Your task to perform on an android device: turn notification dots off Image 0: 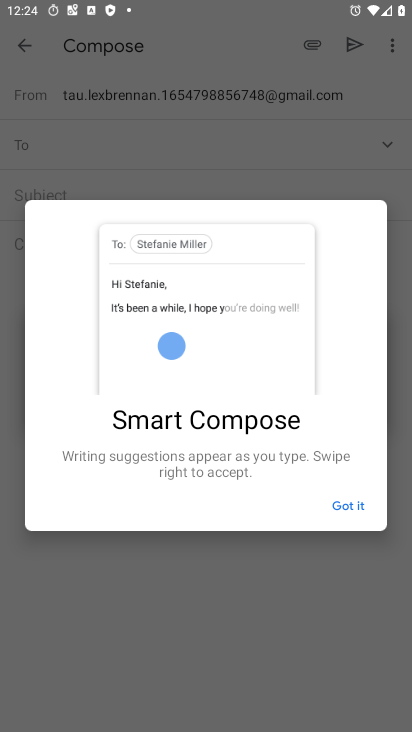
Step 0: press home button
Your task to perform on an android device: turn notification dots off Image 1: 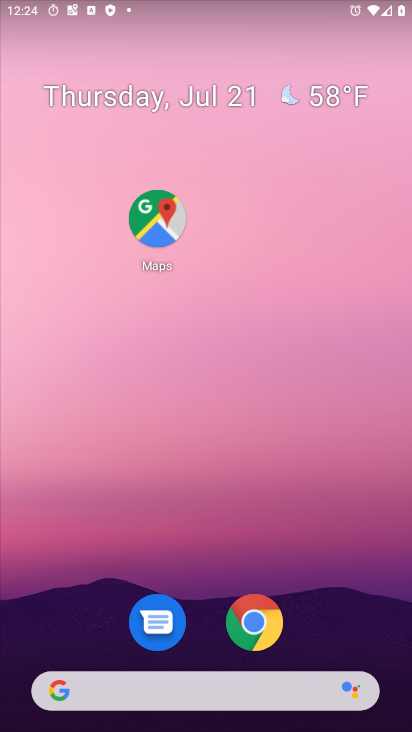
Step 1: drag from (51, 540) to (135, 190)
Your task to perform on an android device: turn notification dots off Image 2: 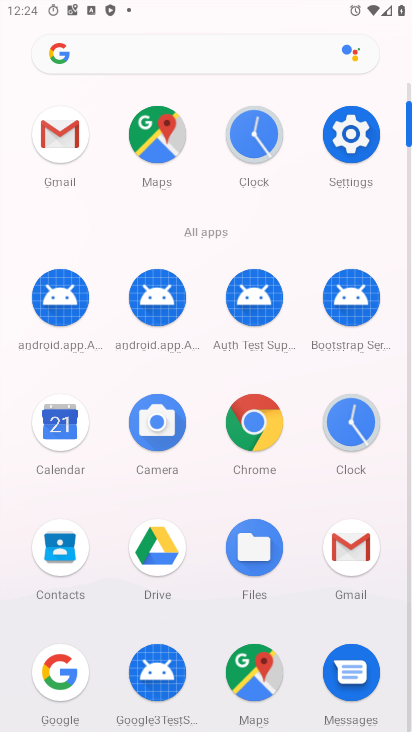
Step 2: click (356, 135)
Your task to perform on an android device: turn notification dots off Image 3: 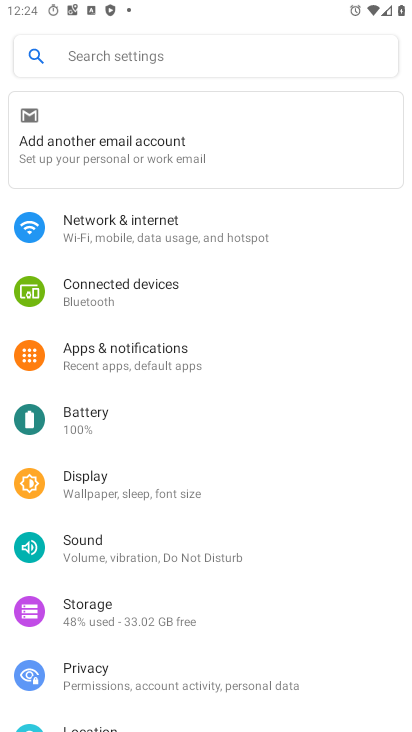
Step 3: click (156, 361)
Your task to perform on an android device: turn notification dots off Image 4: 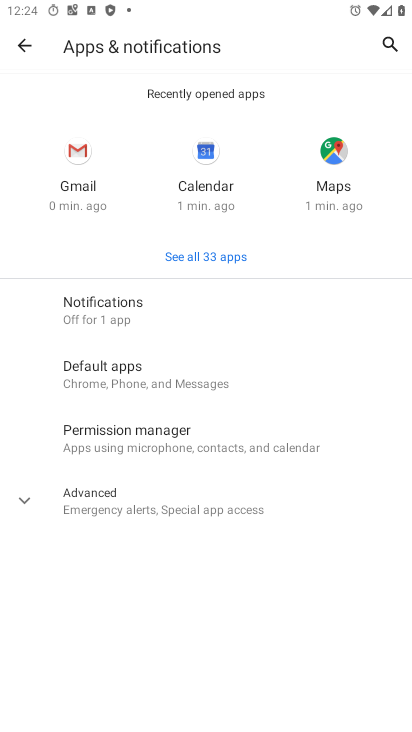
Step 4: click (133, 313)
Your task to perform on an android device: turn notification dots off Image 5: 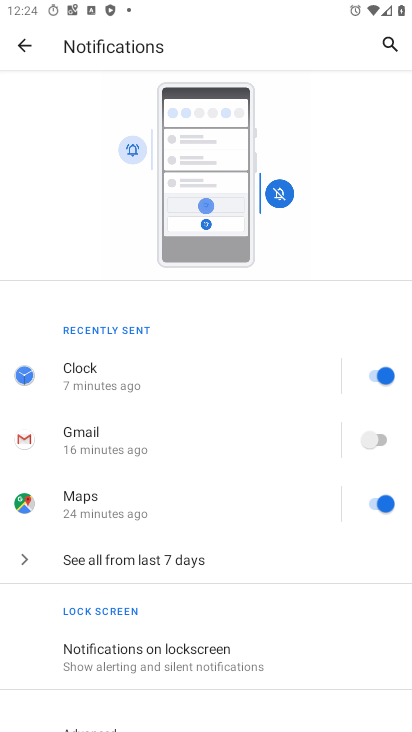
Step 5: drag from (302, 670) to (287, 347)
Your task to perform on an android device: turn notification dots off Image 6: 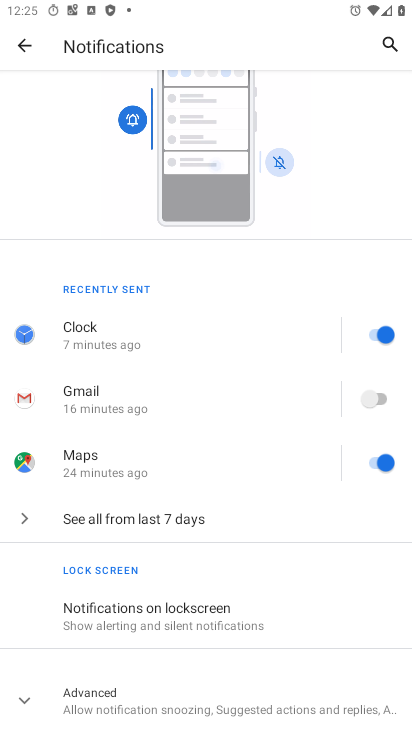
Step 6: click (109, 701)
Your task to perform on an android device: turn notification dots off Image 7: 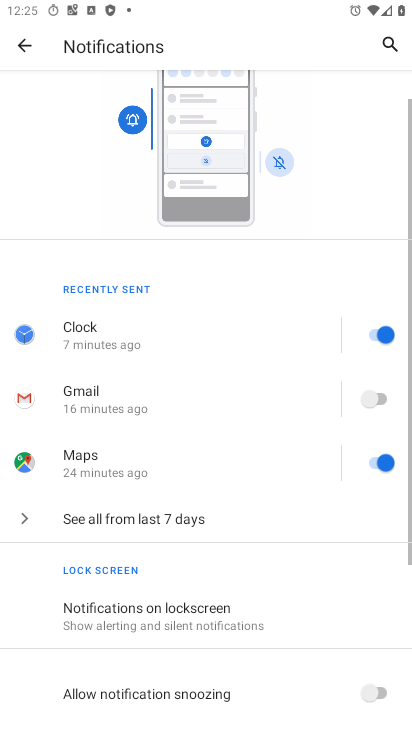
Step 7: drag from (179, 632) to (221, 400)
Your task to perform on an android device: turn notification dots off Image 8: 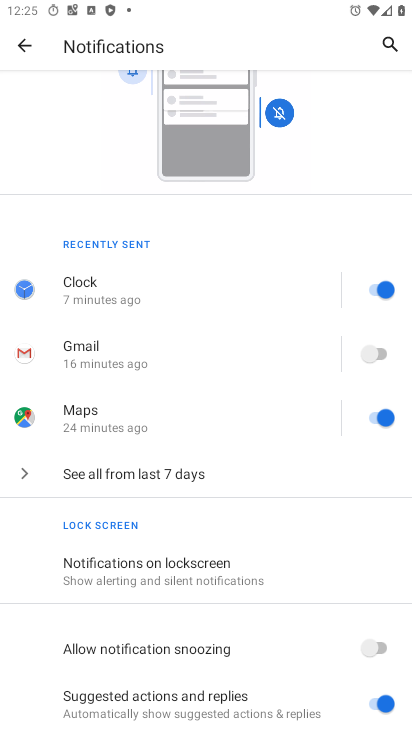
Step 8: drag from (184, 692) to (245, 389)
Your task to perform on an android device: turn notification dots off Image 9: 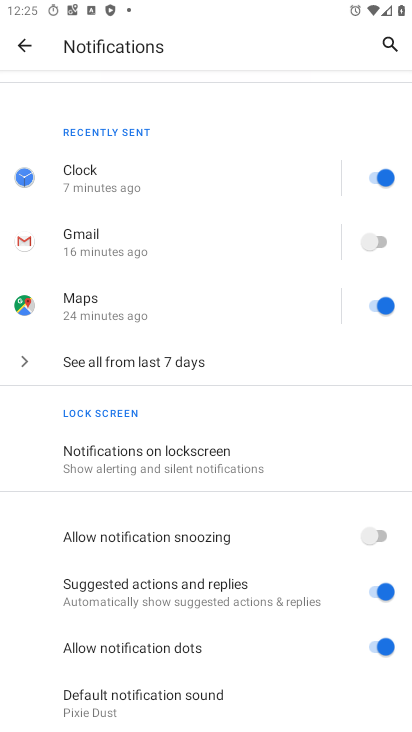
Step 9: click (398, 641)
Your task to perform on an android device: turn notification dots off Image 10: 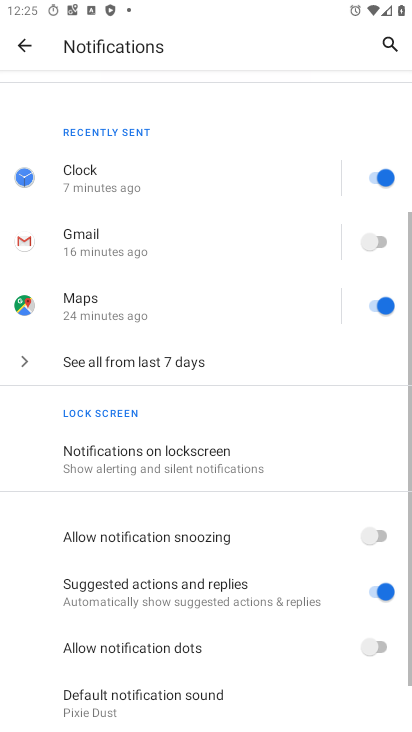
Step 10: click (381, 650)
Your task to perform on an android device: turn notification dots off Image 11: 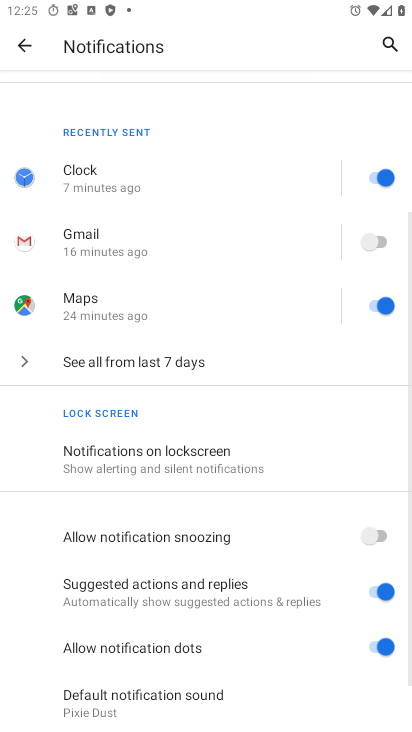
Step 11: task complete